Your task to perform on an android device: toggle airplane mode Image 0: 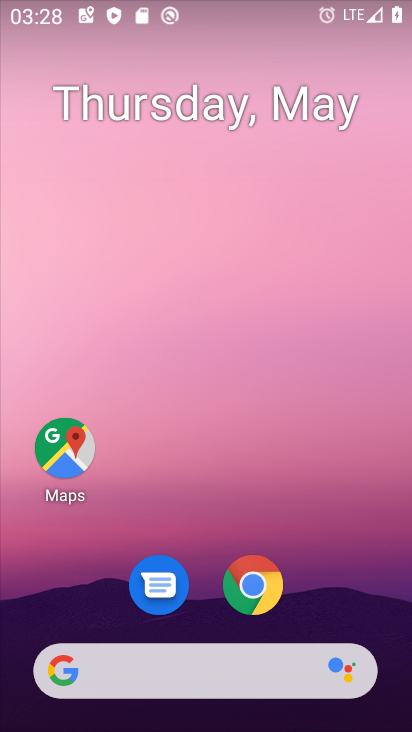
Step 0: drag from (326, 489) to (338, 71)
Your task to perform on an android device: toggle airplane mode Image 1: 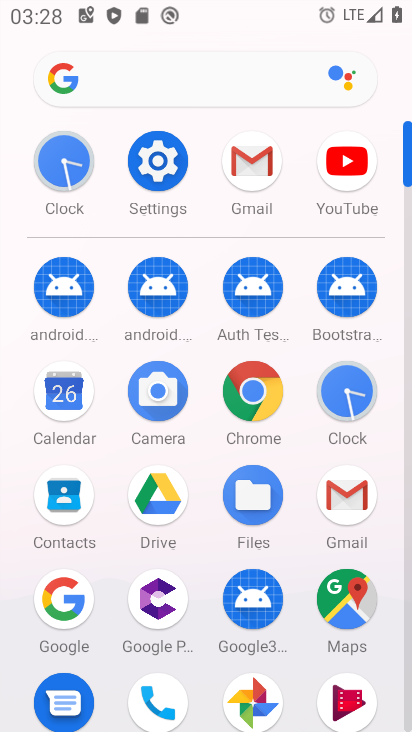
Step 1: click (161, 163)
Your task to perform on an android device: toggle airplane mode Image 2: 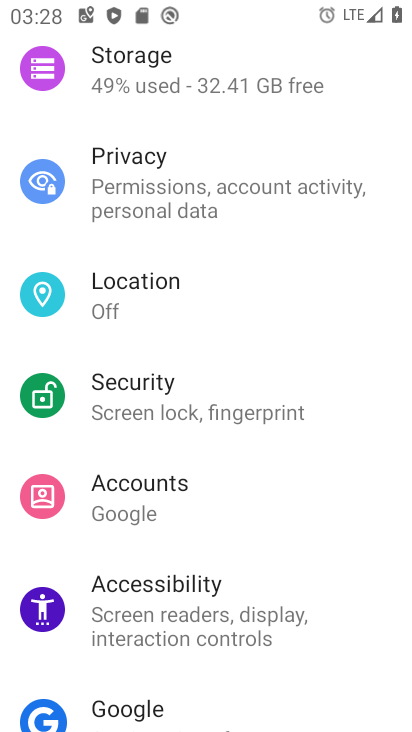
Step 2: drag from (254, 220) to (327, 709)
Your task to perform on an android device: toggle airplane mode Image 3: 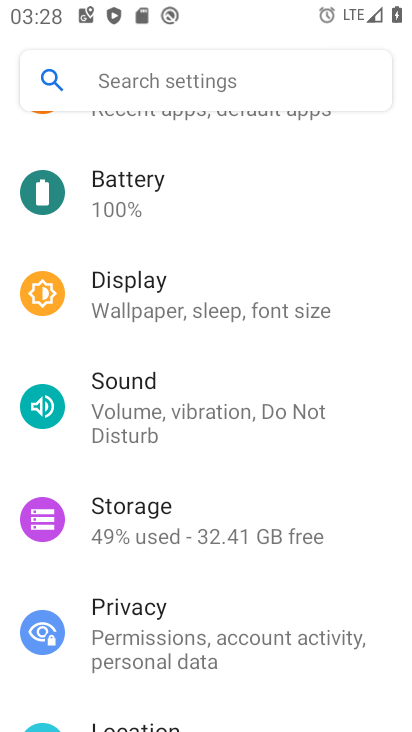
Step 3: drag from (218, 257) to (241, 583)
Your task to perform on an android device: toggle airplane mode Image 4: 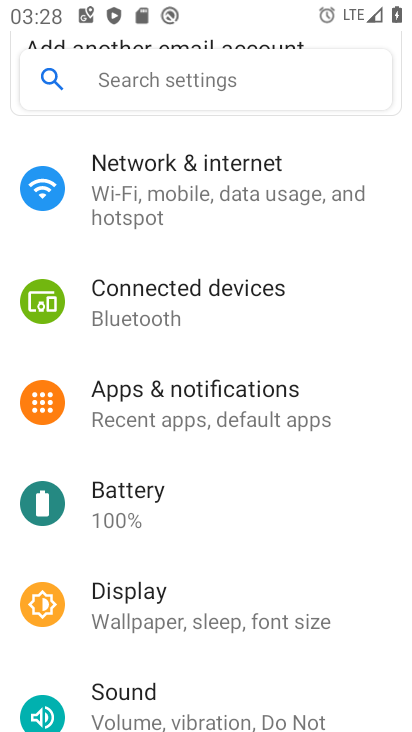
Step 4: click (204, 197)
Your task to perform on an android device: toggle airplane mode Image 5: 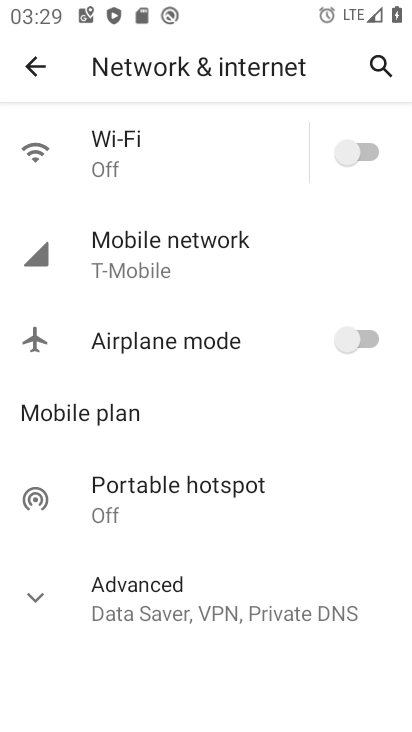
Step 5: click (354, 329)
Your task to perform on an android device: toggle airplane mode Image 6: 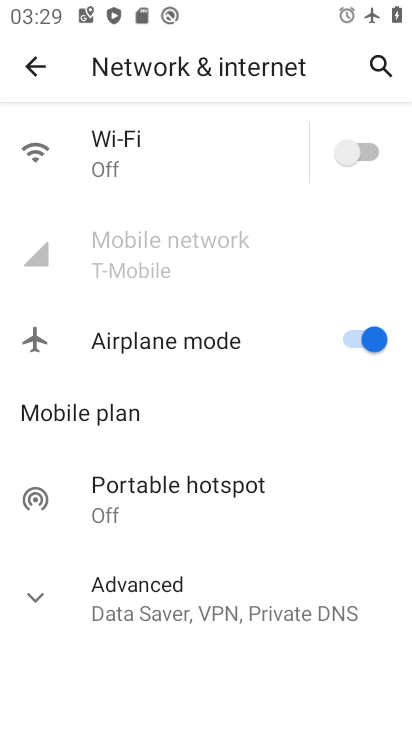
Step 6: task complete